Your task to perform on an android device: change the upload size in google photos Image 0: 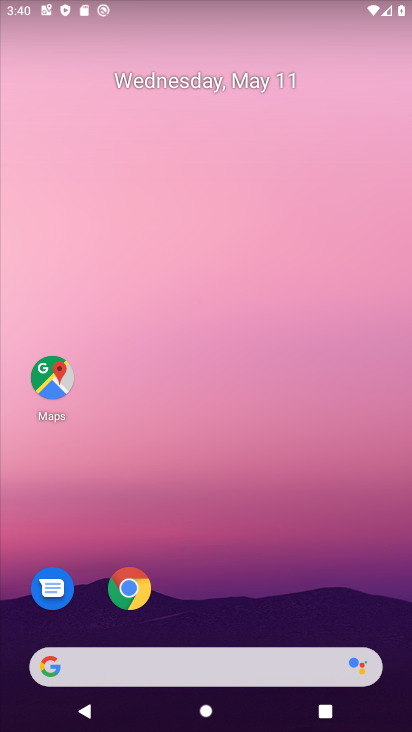
Step 0: drag from (227, 603) to (323, 82)
Your task to perform on an android device: change the upload size in google photos Image 1: 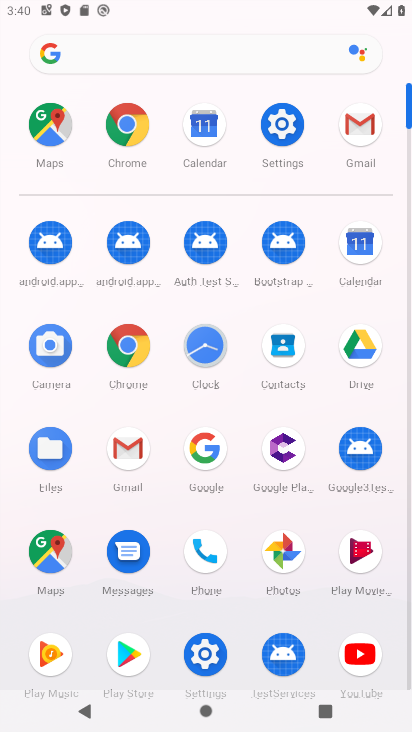
Step 1: click (296, 559)
Your task to perform on an android device: change the upload size in google photos Image 2: 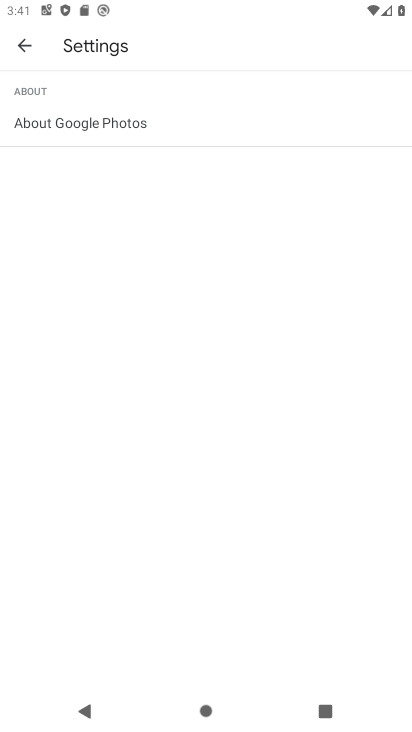
Step 2: click (34, 34)
Your task to perform on an android device: change the upload size in google photos Image 3: 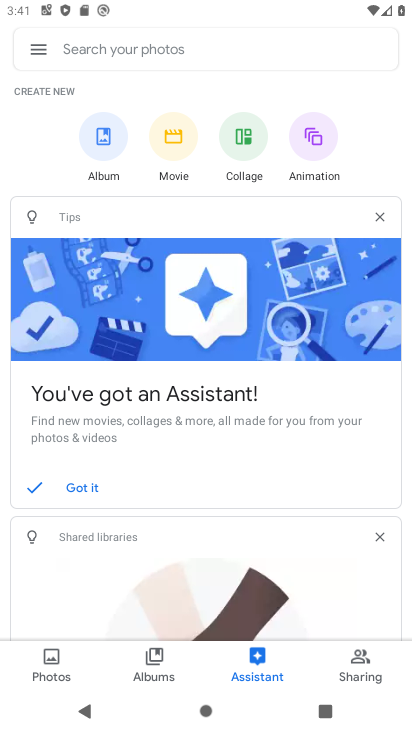
Step 3: click (35, 43)
Your task to perform on an android device: change the upload size in google photos Image 4: 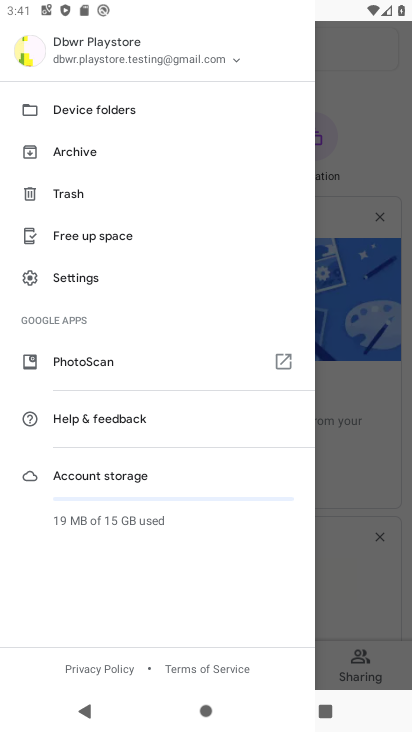
Step 4: click (93, 283)
Your task to perform on an android device: change the upload size in google photos Image 5: 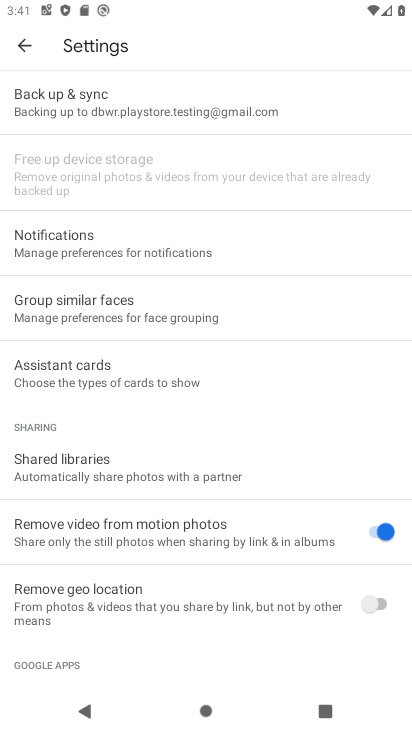
Step 5: click (160, 105)
Your task to perform on an android device: change the upload size in google photos Image 6: 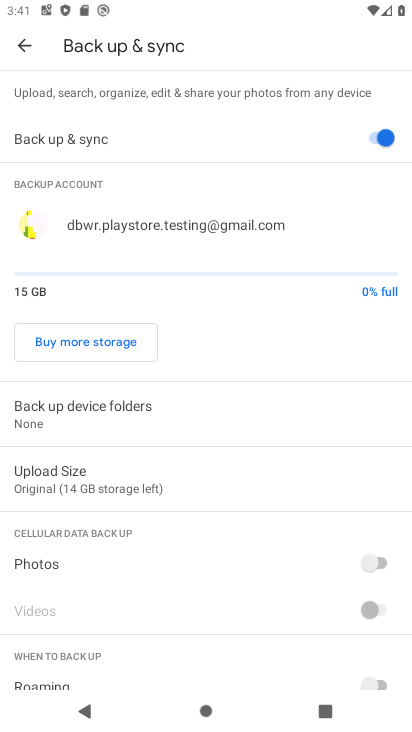
Step 6: click (131, 497)
Your task to perform on an android device: change the upload size in google photos Image 7: 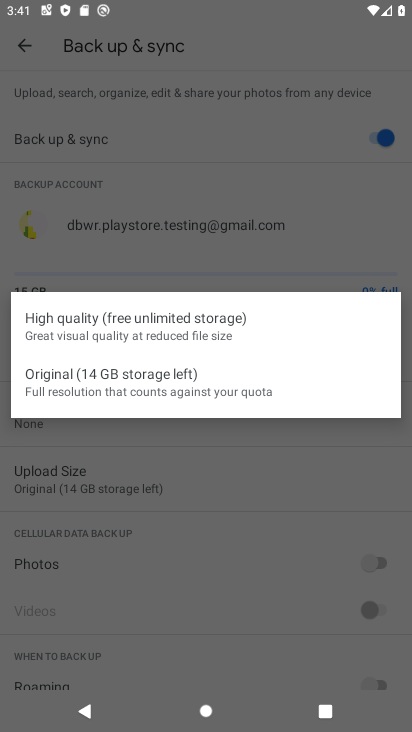
Step 7: click (146, 307)
Your task to perform on an android device: change the upload size in google photos Image 8: 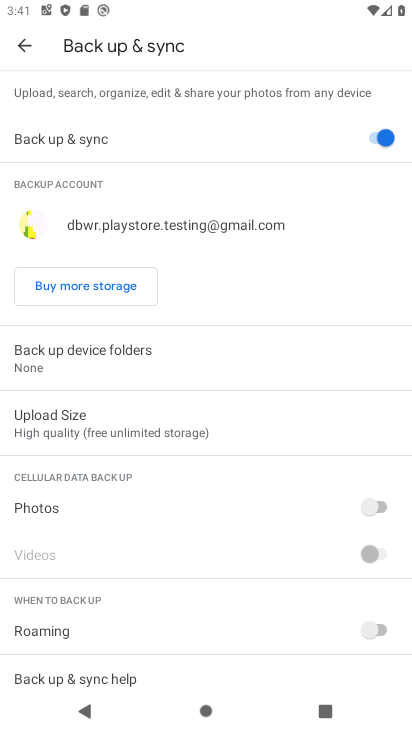
Step 8: task complete